Your task to perform on an android device: allow cookies in the chrome app Image 0: 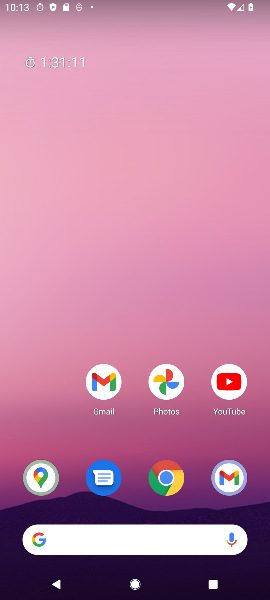
Step 0: drag from (126, 457) to (96, 59)
Your task to perform on an android device: allow cookies in the chrome app Image 1: 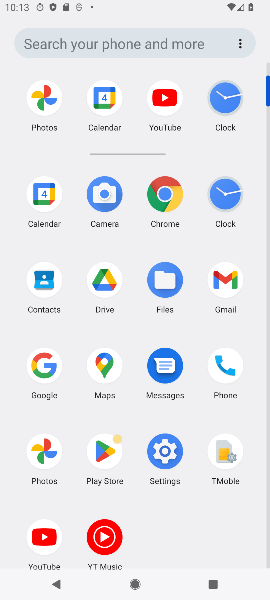
Step 1: click (165, 192)
Your task to perform on an android device: allow cookies in the chrome app Image 2: 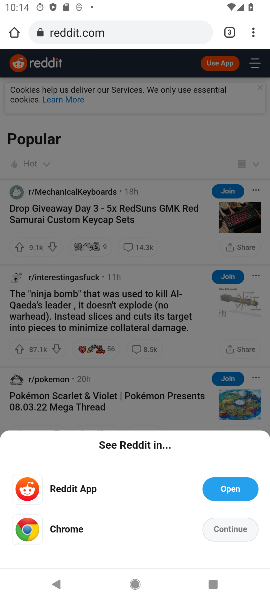
Step 2: drag from (250, 26) to (160, 434)
Your task to perform on an android device: allow cookies in the chrome app Image 3: 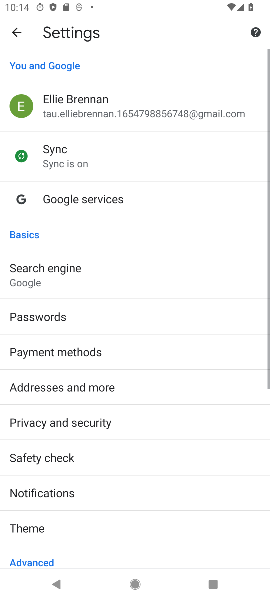
Step 3: drag from (114, 486) to (148, 244)
Your task to perform on an android device: allow cookies in the chrome app Image 4: 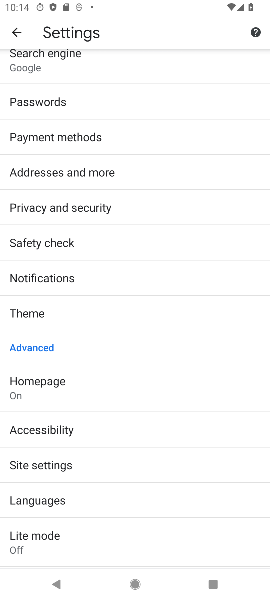
Step 4: click (44, 461)
Your task to perform on an android device: allow cookies in the chrome app Image 5: 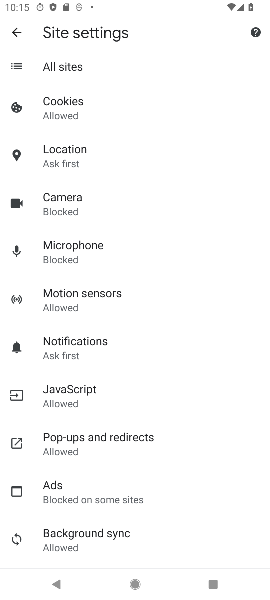
Step 5: click (71, 98)
Your task to perform on an android device: allow cookies in the chrome app Image 6: 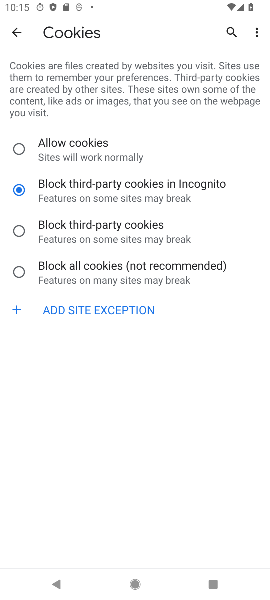
Step 6: click (53, 145)
Your task to perform on an android device: allow cookies in the chrome app Image 7: 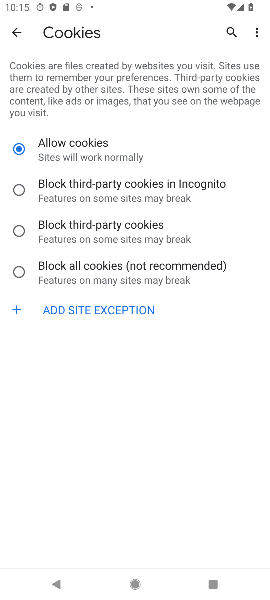
Step 7: task complete